Your task to perform on an android device: check android version Image 0: 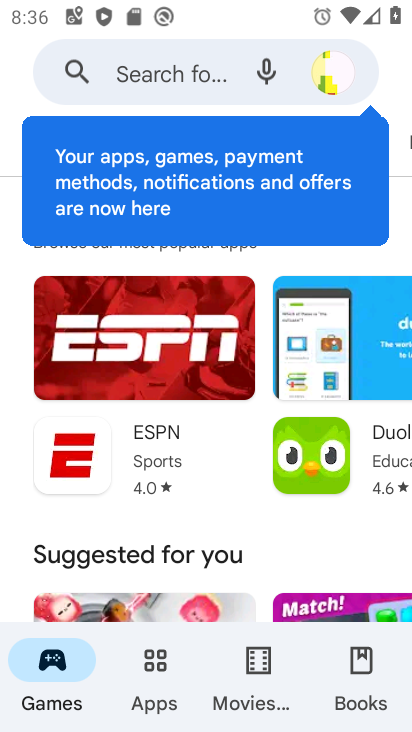
Step 0: press home button
Your task to perform on an android device: check android version Image 1: 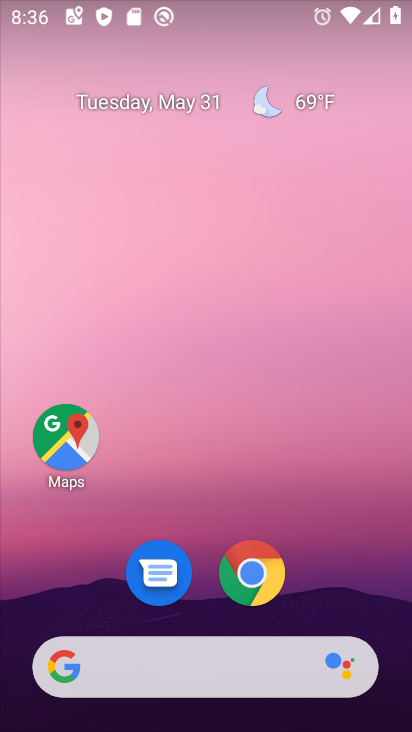
Step 1: drag from (204, 491) to (245, 66)
Your task to perform on an android device: check android version Image 2: 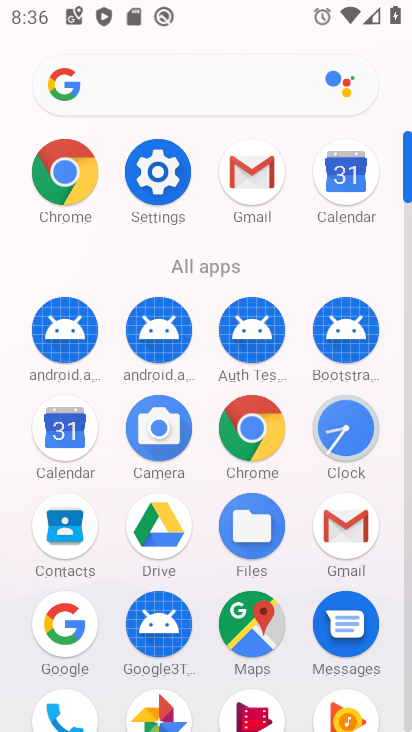
Step 2: click (156, 166)
Your task to perform on an android device: check android version Image 3: 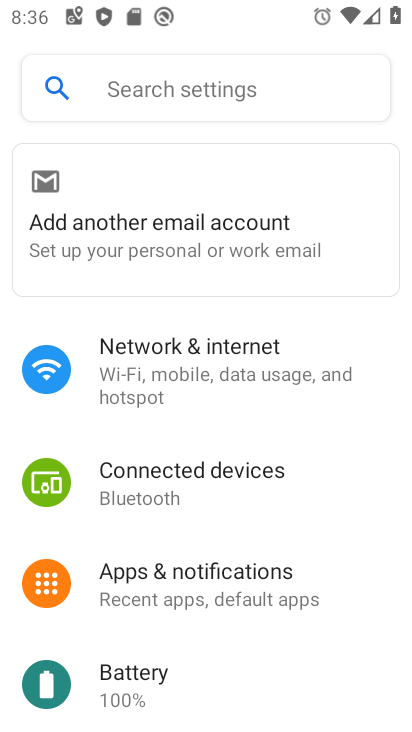
Step 3: drag from (183, 691) to (241, 155)
Your task to perform on an android device: check android version Image 4: 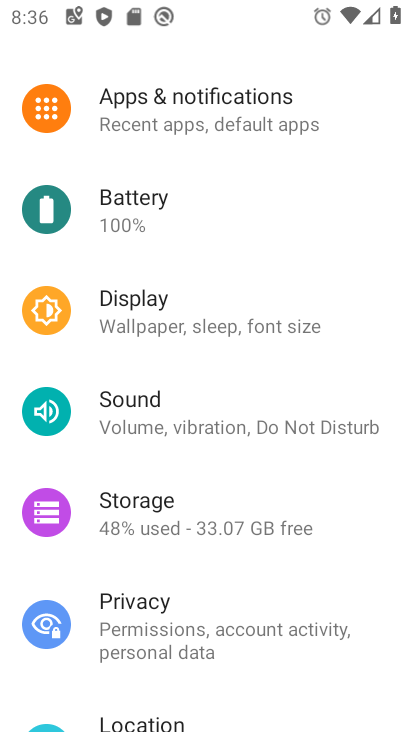
Step 4: drag from (202, 690) to (259, 197)
Your task to perform on an android device: check android version Image 5: 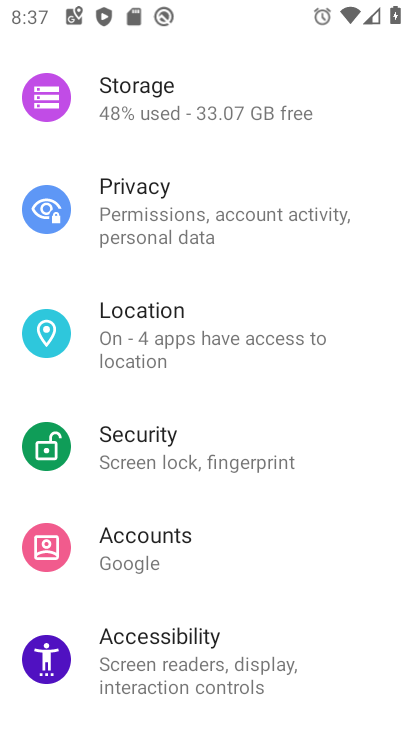
Step 5: drag from (221, 522) to (268, 71)
Your task to perform on an android device: check android version Image 6: 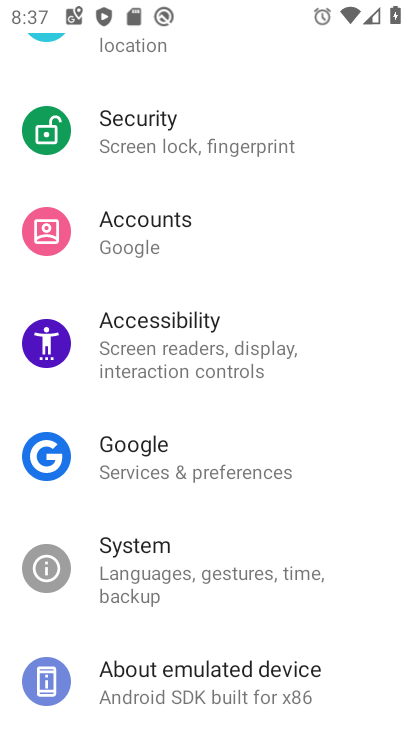
Step 6: click (157, 678)
Your task to perform on an android device: check android version Image 7: 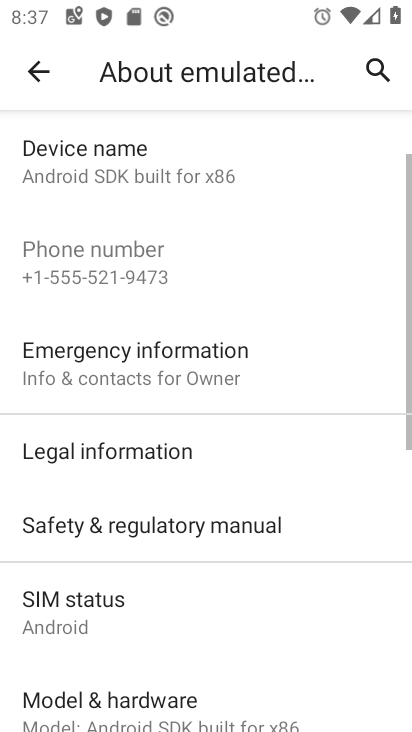
Step 7: drag from (157, 622) to (180, 218)
Your task to perform on an android device: check android version Image 8: 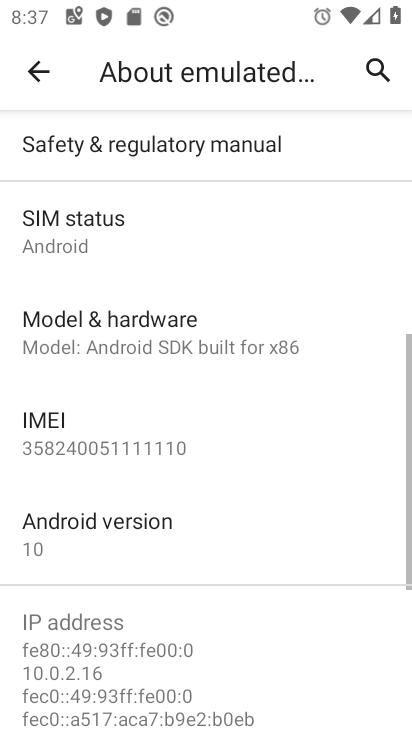
Step 8: click (117, 537)
Your task to perform on an android device: check android version Image 9: 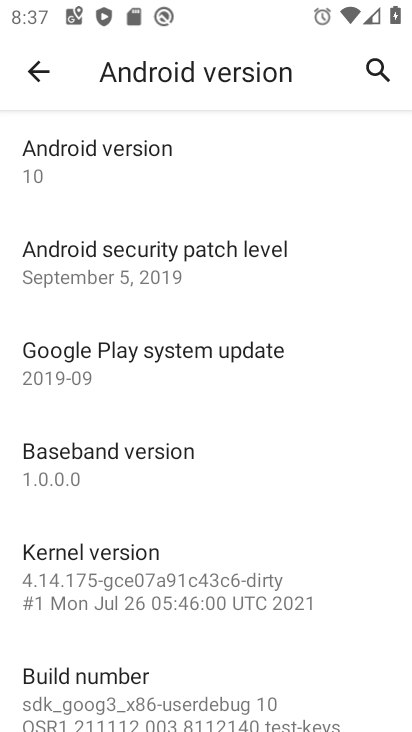
Step 9: task complete